Your task to perform on an android device: Turn on the flashlight Image 0: 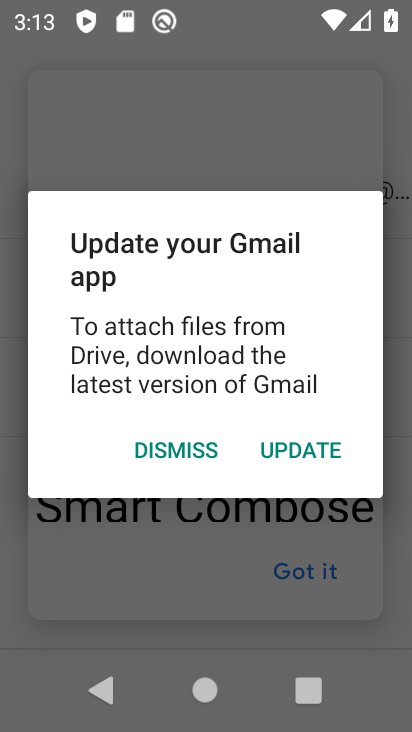
Step 0: press home button
Your task to perform on an android device: Turn on the flashlight Image 1: 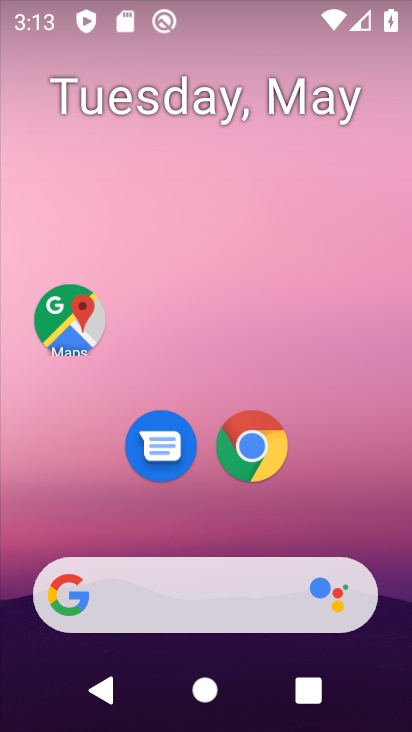
Step 1: drag from (219, 720) to (227, 142)
Your task to perform on an android device: Turn on the flashlight Image 2: 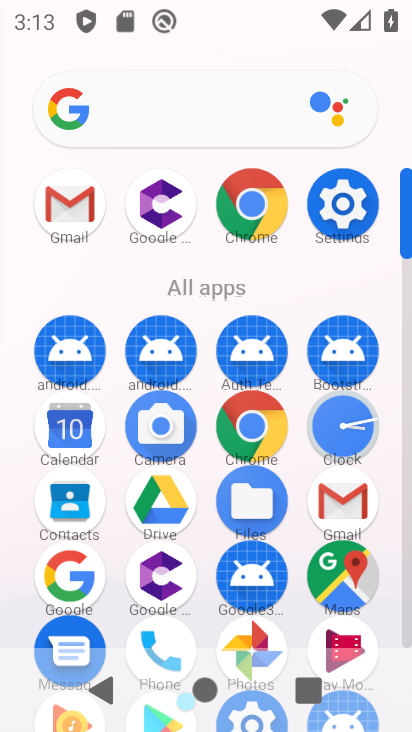
Step 2: click (354, 208)
Your task to perform on an android device: Turn on the flashlight Image 3: 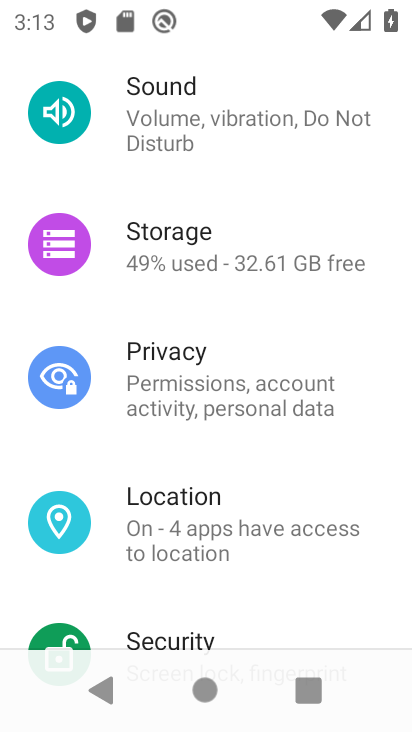
Step 3: click (171, 372)
Your task to perform on an android device: Turn on the flashlight Image 4: 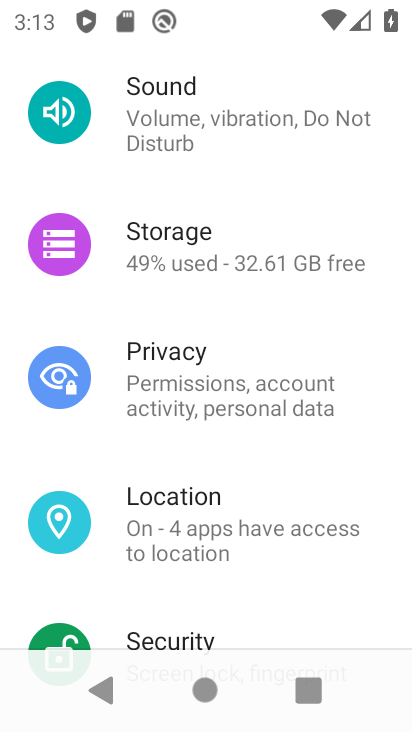
Step 4: task complete